Your task to perform on an android device: Open CNN.com Image 0: 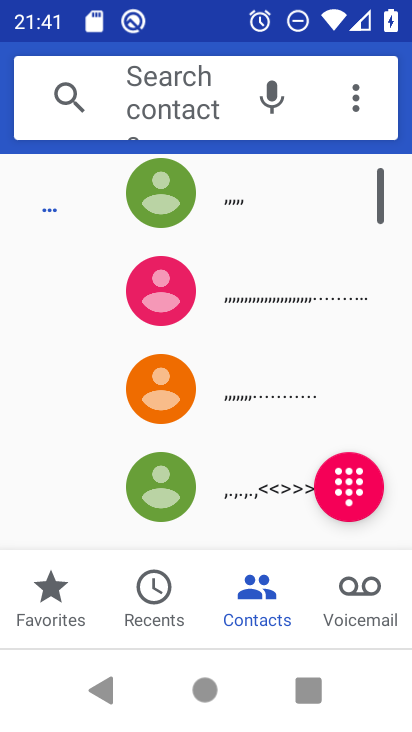
Step 0: press home button
Your task to perform on an android device: Open CNN.com Image 1: 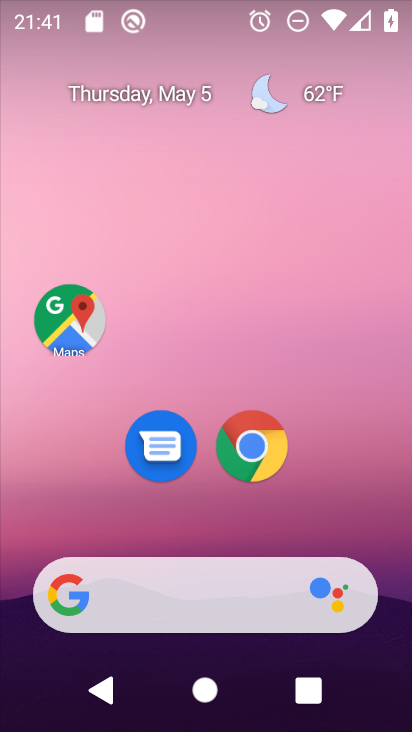
Step 1: drag from (257, 642) to (282, 288)
Your task to perform on an android device: Open CNN.com Image 2: 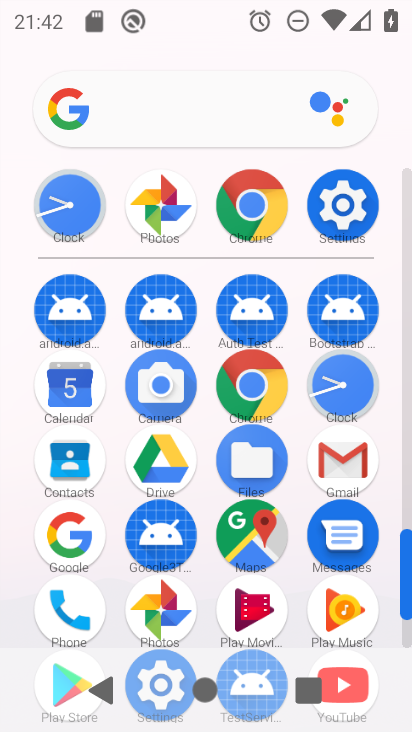
Step 2: click (264, 201)
Your task to perform on an android device: Open CNN.com Image 3: 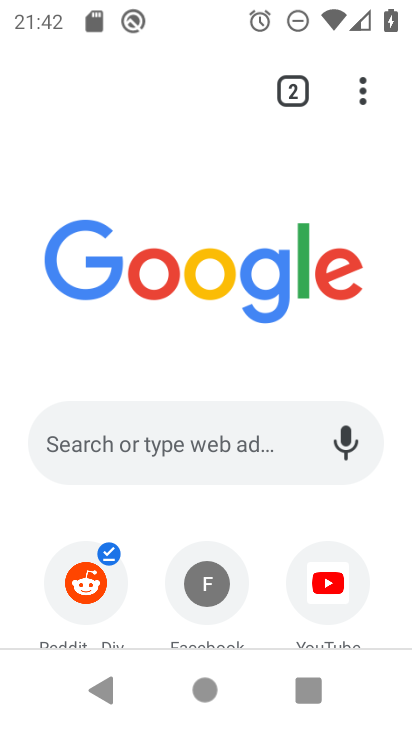
Step 3: drag from (216, 477) to (218, 225)
Your task to perform on an android device: Open CNN.com Image 4: 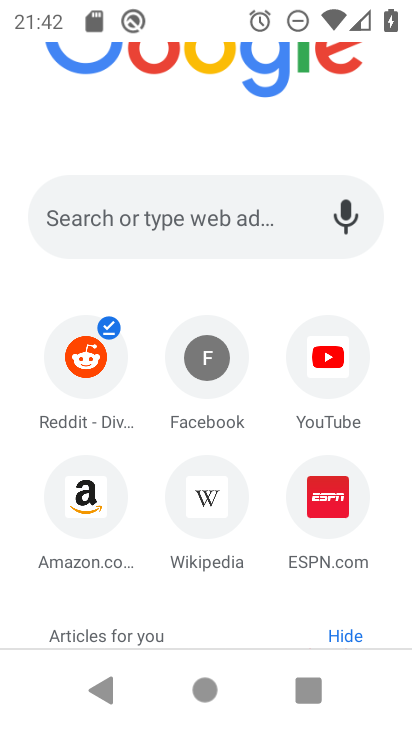
Step 4: click (167, 211)
Your task to perform on an android device: Open CNN.com Image 5: 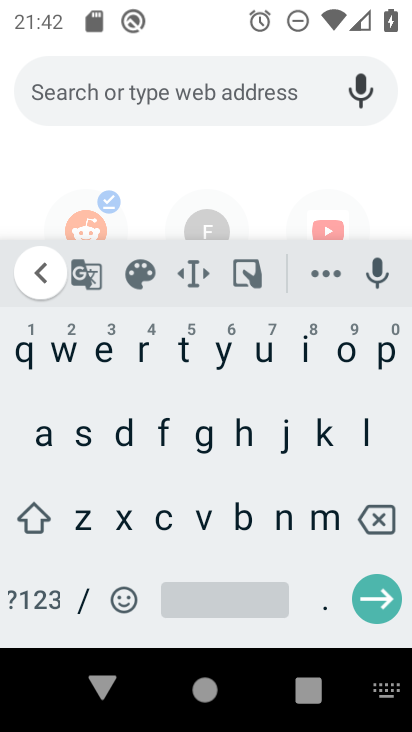
Step 5: click (165, 516)
Your task to perform on an android device: Open CNN.com Image 6: 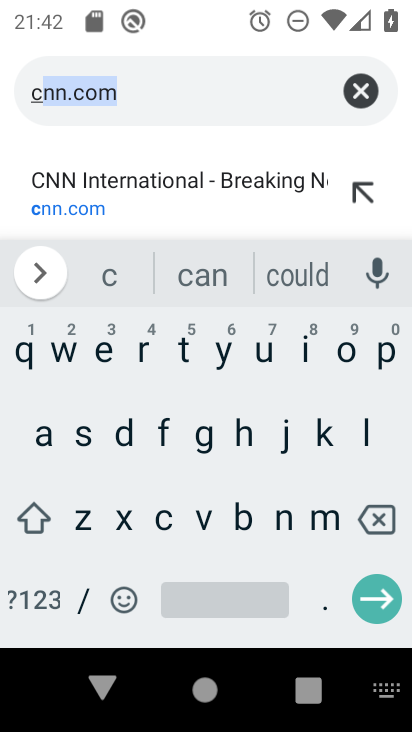
Step 6: click (168, 111)
Your task to perform on an android device: Open CNN.com Image 7: 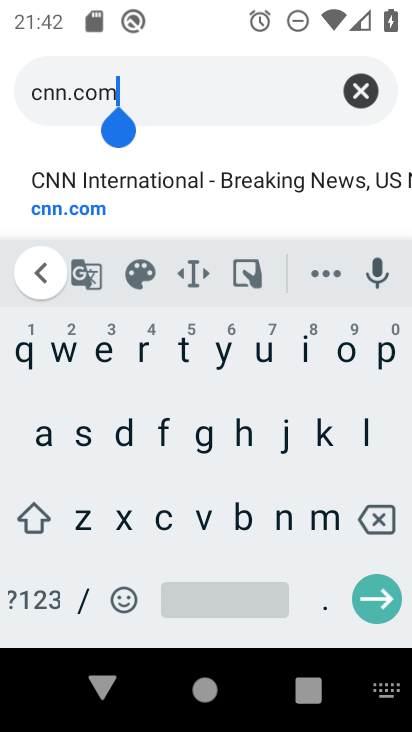
Step 7: click (370, 598)
Your task to perform on an android device: Open CNN.com Image 8: 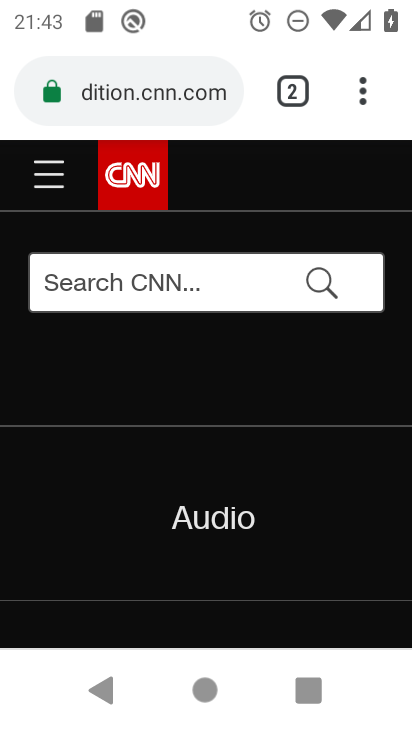
Step 8: task complete